Your task to perform on an android device: turn pop-ups off in chrome Image 0: 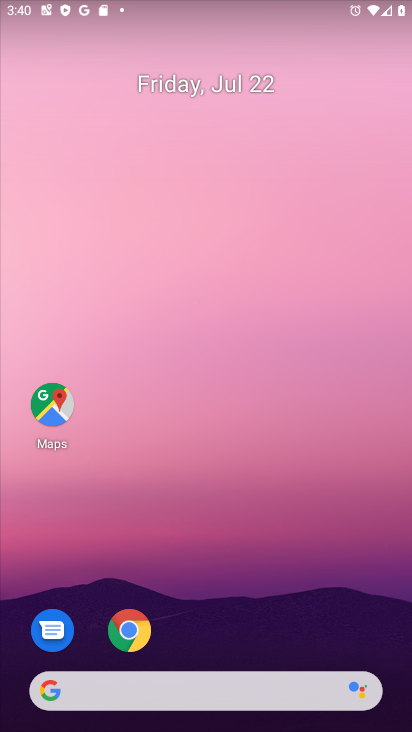
Step 0: click (118, 631)
Your task to perform on an android device: turn pop-ups off in chrome Image 1: 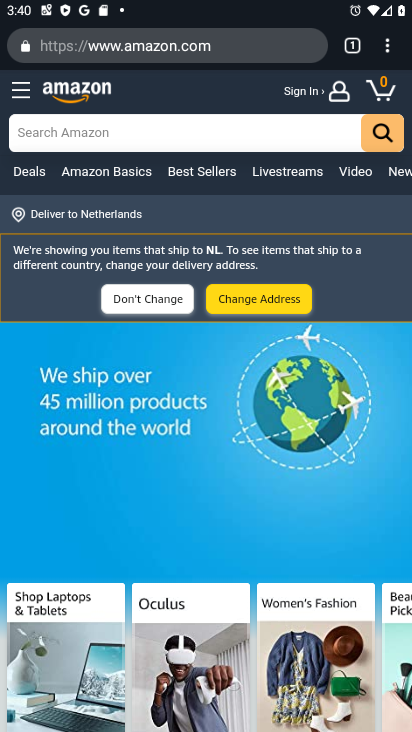
Step 1: drag from (387, 51) to (262, 546)
Your task to perform on an android device: turn pop-ups off in chrome Image 2: 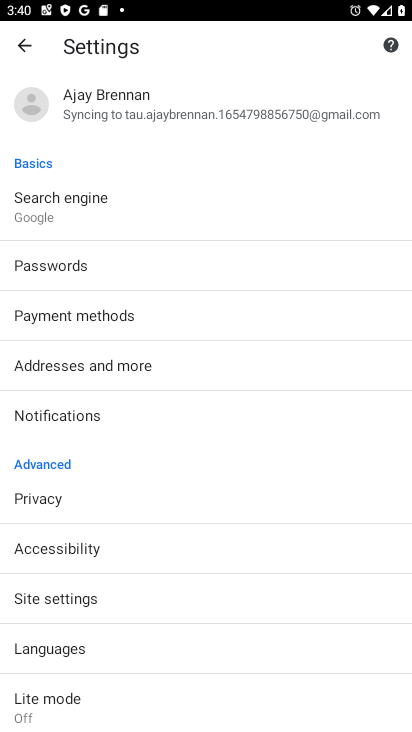
Step 2: click (66, 603)
Your task to perform on an android device: turn pop-ups off in chrome Image 3: 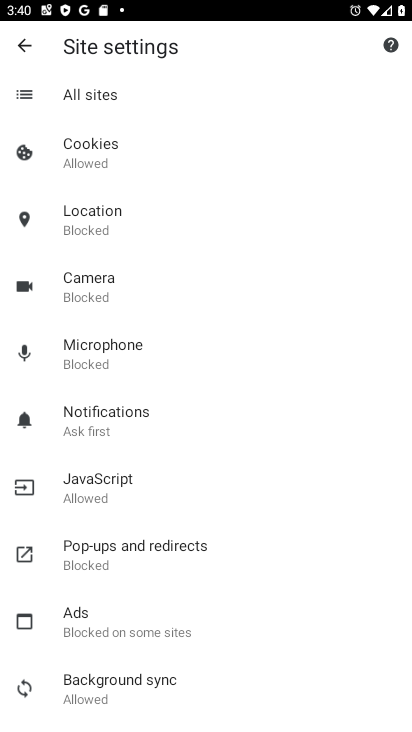
Step 3: click (127, 569)
Your task to perform on an android device: turn pop-ups off in chrome Image 4: 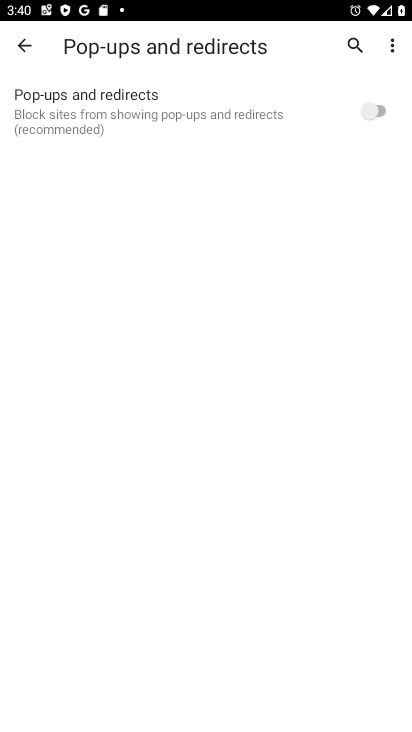
Step 4: task complete